Your task to perform on an android device: turn vacation reply on in the gmail app Image 0: 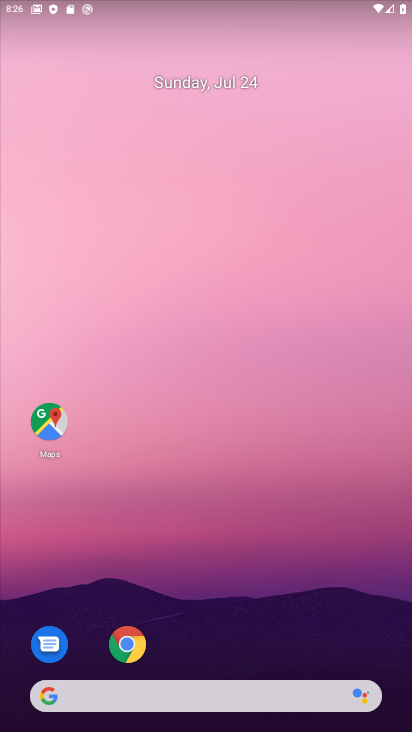
Step 0: click (158, 148)
Your task to perform on an android device: turn vacation reply on in the gmail app Image 1: 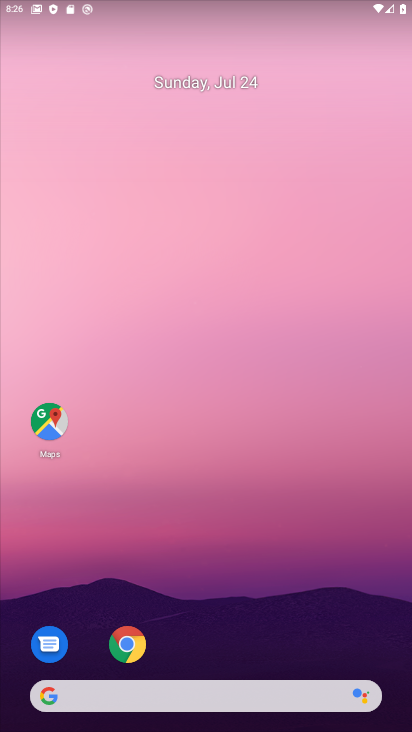
Step 1: drag from (210, 630) to (167, 261)
Your task to perform on an android device: turn vacation reply on in the gmail app Image 2: 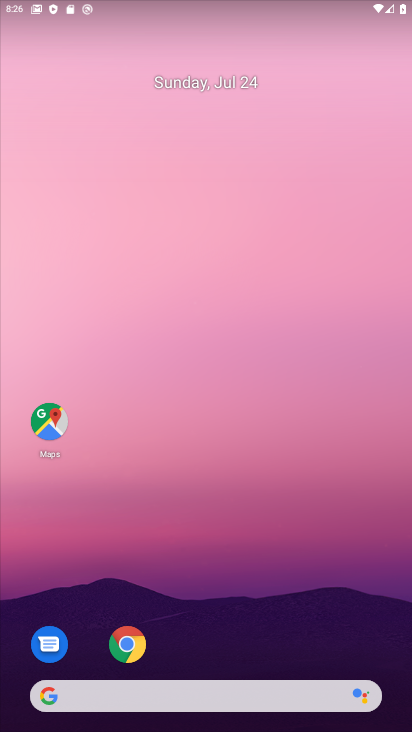
Step 2: drag from (258, 575) to (199, 260)
Your task to perform on an android device: turn vacation reply on in the gmail app Image 3: 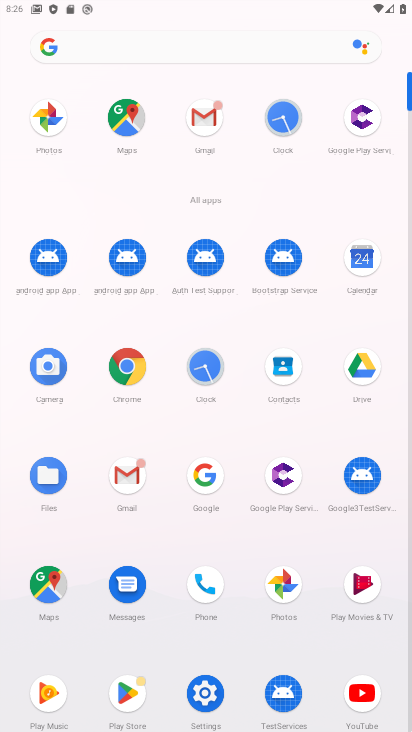
Step 3: drag from (288, 666) to (238, 167)
Your task to perform on an android device: turn vacation reply on in the gmail app Image 4: 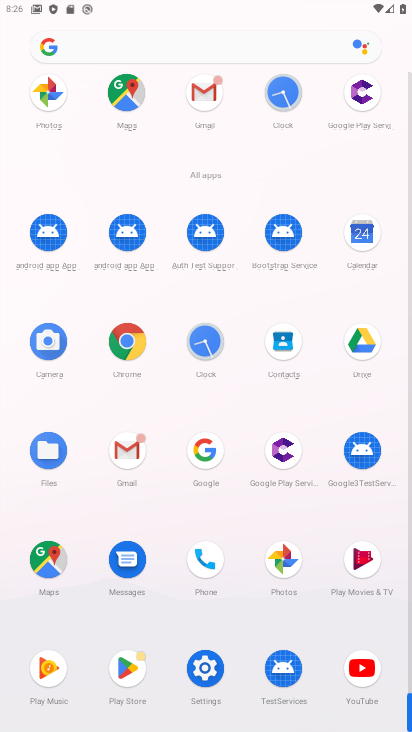
Step 4: click (118, 464)
Your task to perform on an android device: turn vacation reply on in the gmail app Image 5: 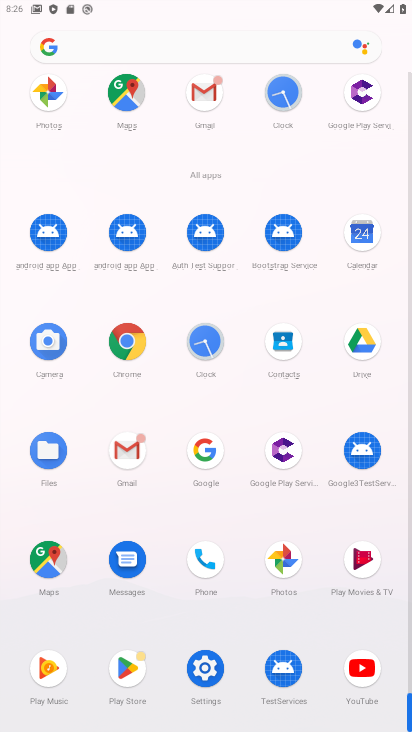
Step 5: click (118, 465)
Your task to perform on an android device: turn vacation reply on in the gmail app Image 6: 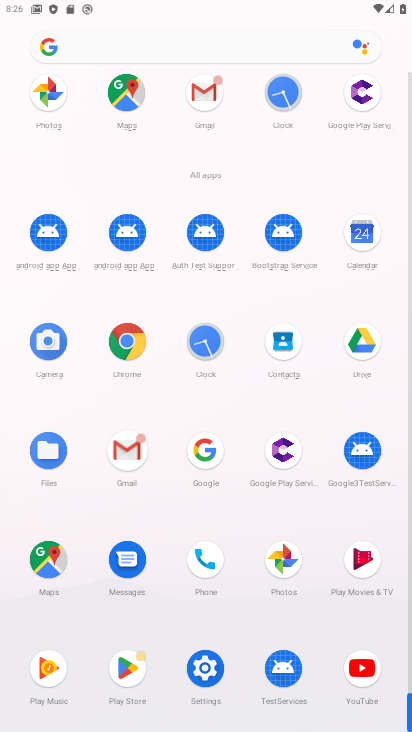
Step 6: click (115, 466)
Your task to perform on an android device: turn vacation reply on in the gmail app Image 7: 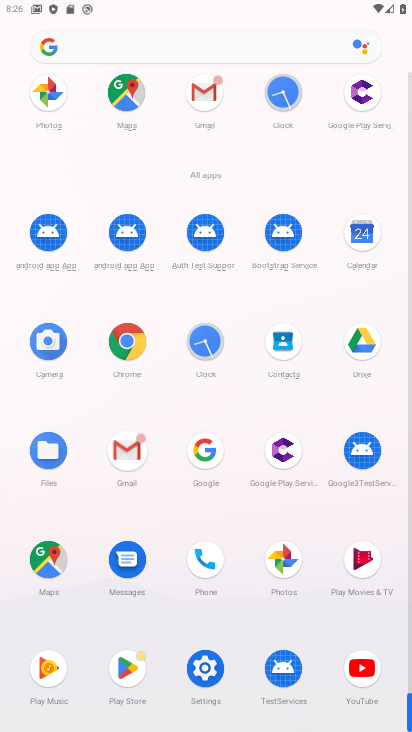
Step 7: click (120, 463)
Your task to perform on an android device: turn vacation reply on in the gmail app Image 8: 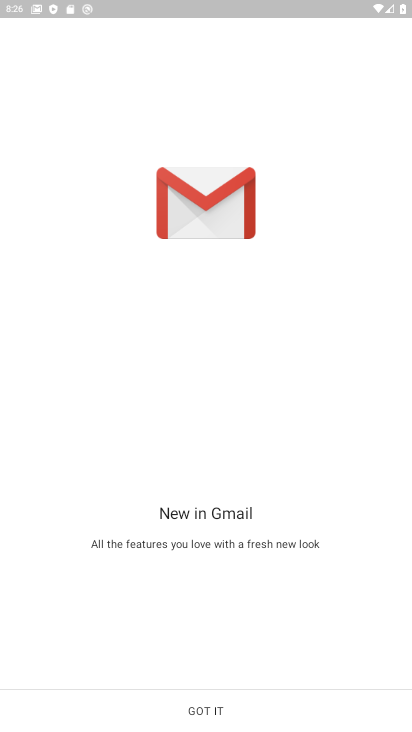
Step 8: click (203, 706)
Your task to perform on an android device: turn vacation reply on in the gmail app Image 9: 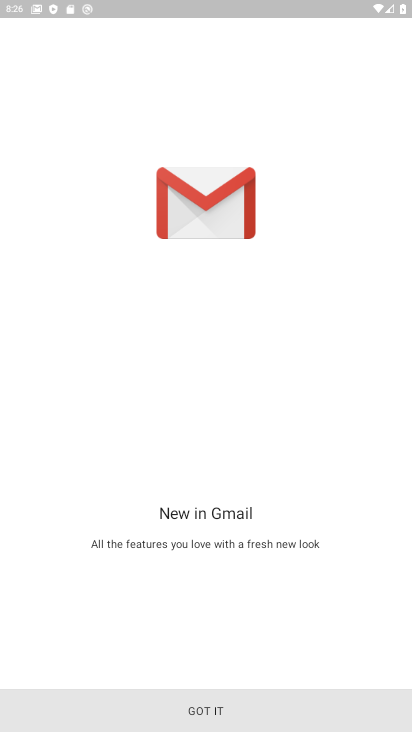
Step 9: click (209, 715)
Your task to perform on an android device: turn vacation reply on in the gmail app Image 10: 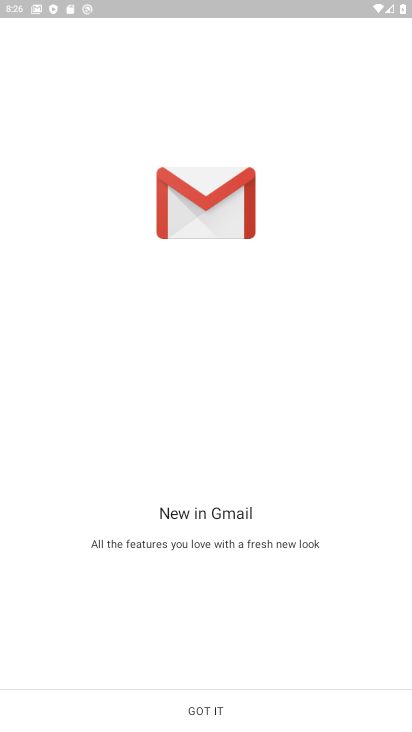
Step 10: click (210, 719)
Your task to perform on an android device: turn vacation reply on in the gmail app Image 11: 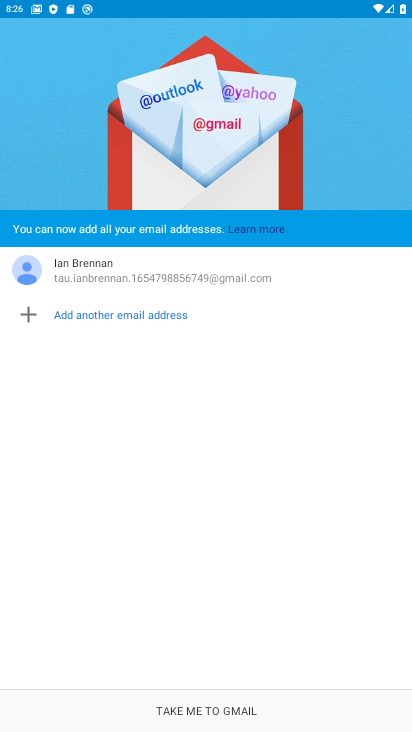
Step 11: click (214, 714)
Your task to perform on an android device: turn vacation reply on in the gmail app Image 12: 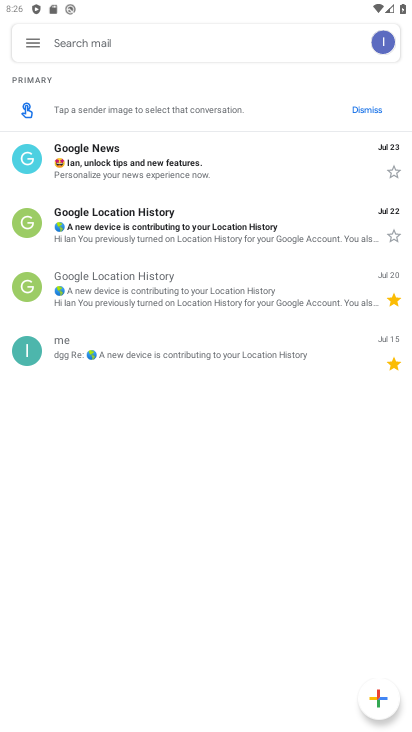
Step 12: click (28, 50)
Your task to perform on an android device: turn vacation reply on in the gmail app Image 13: 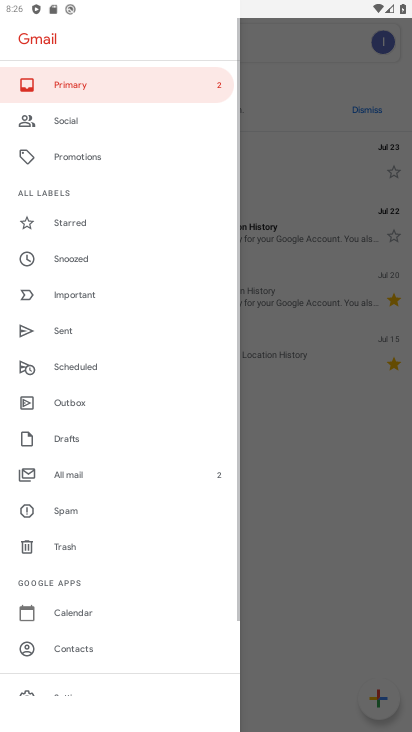
Step 13: drag from (96, 579) to (93, 223)
Your task to perform on an android device: turn vacation reply on in the gmail app Image 14: 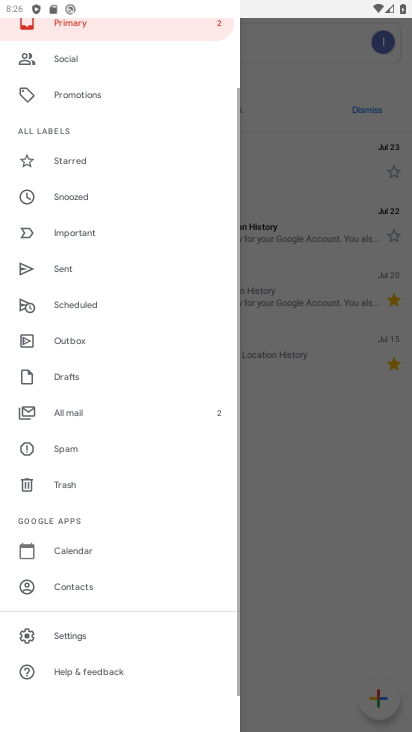
Step 14: drag from (94, 532) to (111, 191)
Your task to perform on an android device: turn vacation reply on in the gmail app Image 15: 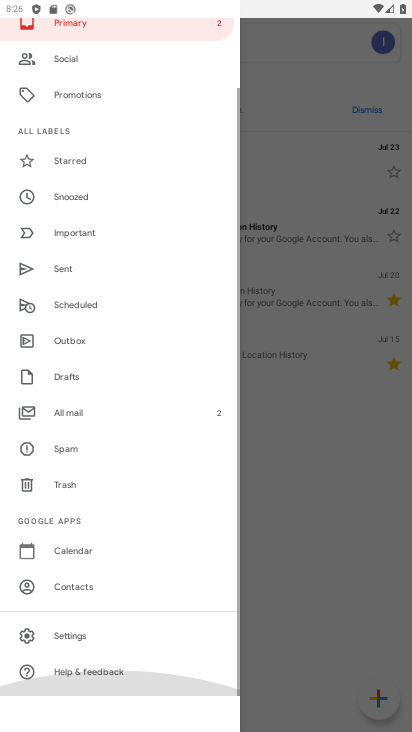
Step 15: drag from (106, 429) to (105, 203)
Your task to perform on an android device: turn vacation reply on in the gmail app Image 16: 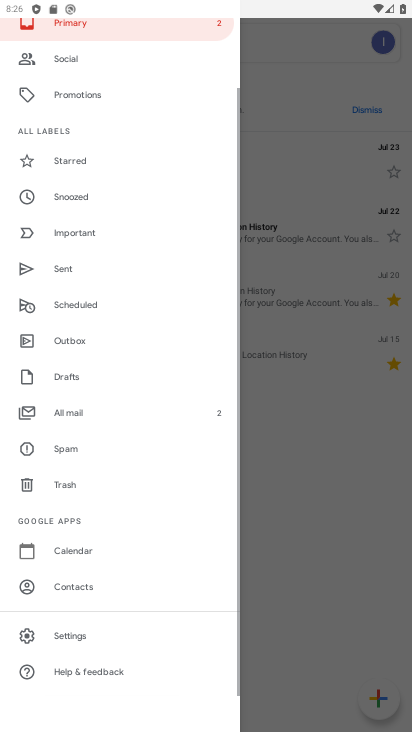
Step 16: click (74, 642)
Your task to perform on an android device: turn vacation reply on in the gmail app Image 17: 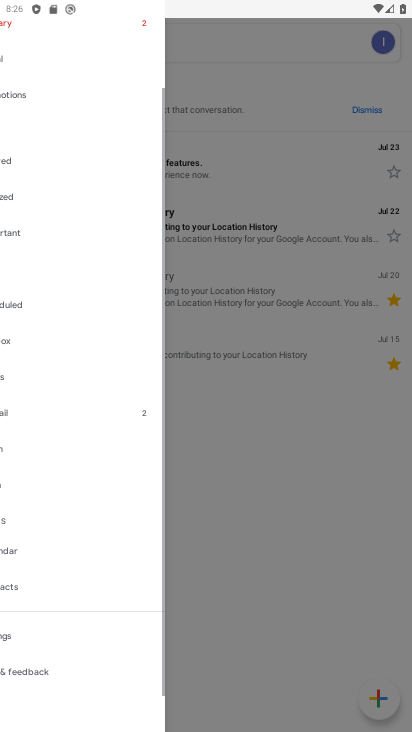
Step 17: click (74, 641)
Your task to perform on an android device: turn vacation reply on in the gmail app Image 18: 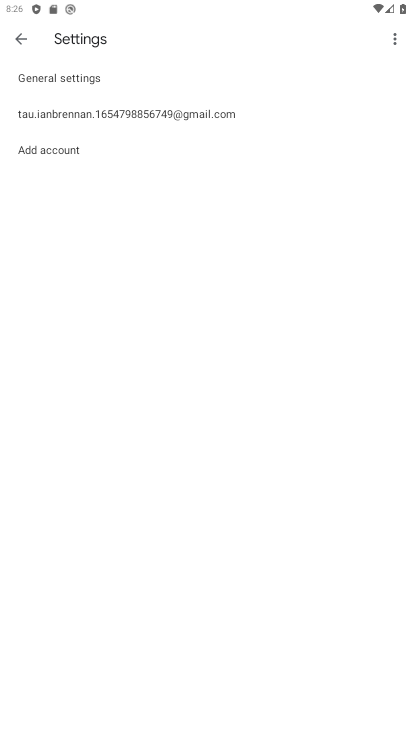
Step 18: click (86, 119)
Your task to perform on an android device: turn vacation reply on in the gmail app Image 19: 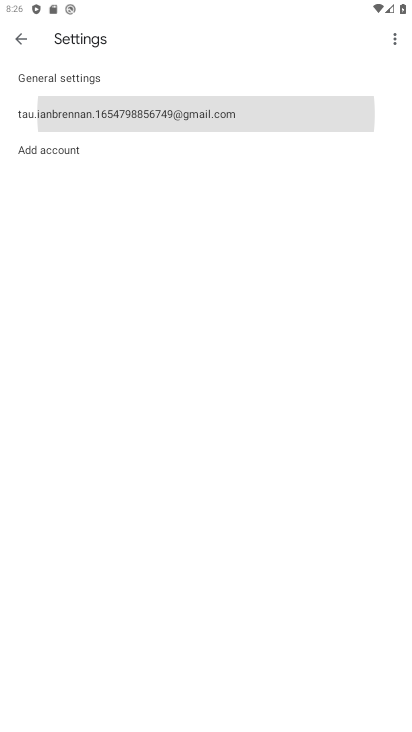
Step 19: click (85, 118)
Your task to perform on an android device: turn vacation reply on in the gmail app Image 20: 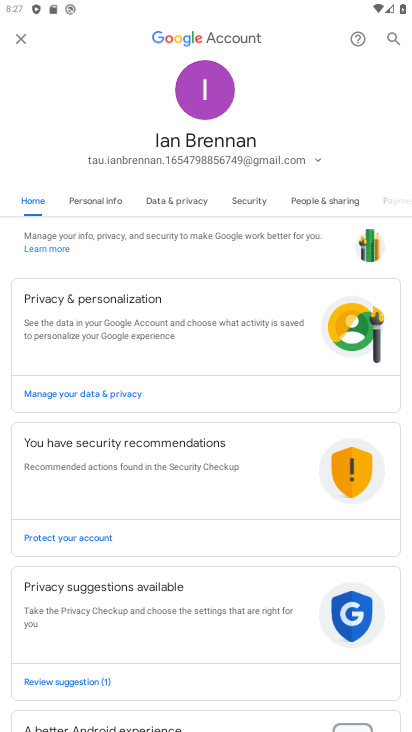
Step 20: click (12, 37)
Your task to perform on an android device: turn vacation reply on in the gmail app Image 21: 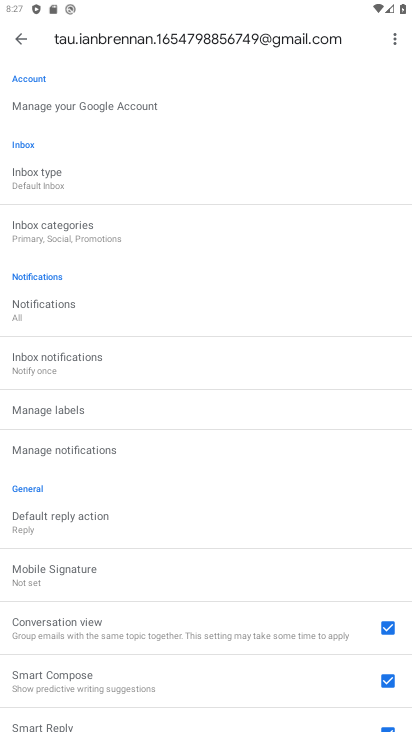
Step 21: drag from (198, 568) to (189, 306)
Your task to perform on an android device: turn vacation reply on in the gmail app Image 22: 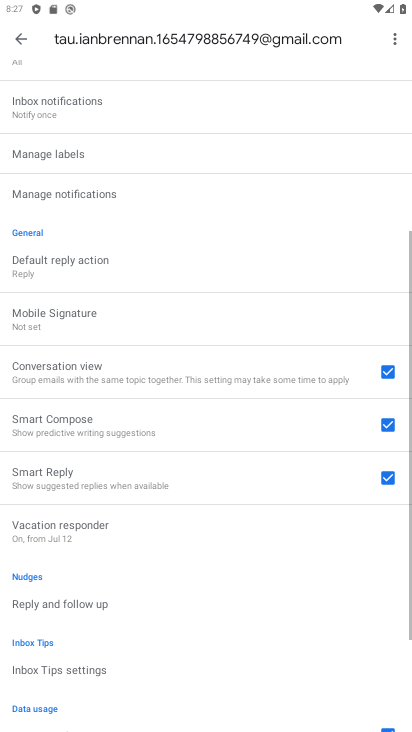
Step 22: drag from (150, 537) to (130, 194)
Your task to perform on an android device: turn vacation reply on in the gmail app Image 23: 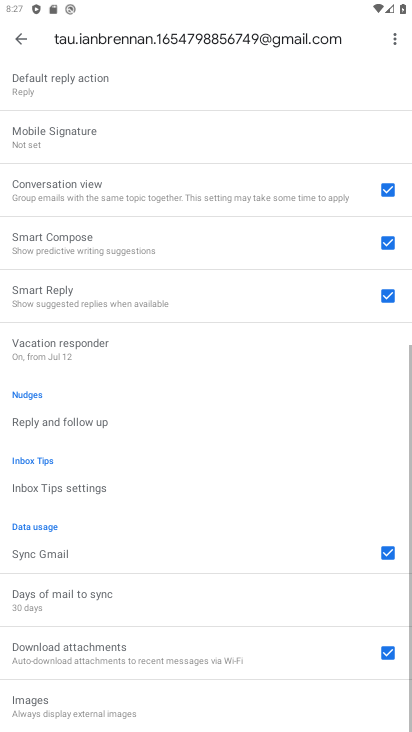
Step 23: drag from (117, 389) to (135, 203)
Your task to perform on an android device: turn vacation reply on in the gmail app Image 24: 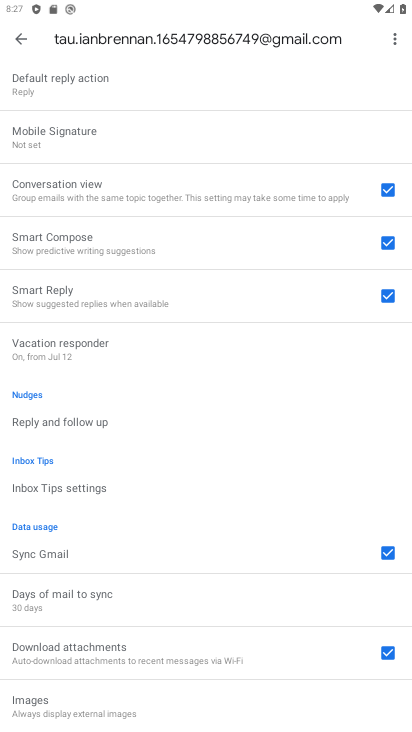
Step 24: click (62, 343)
Your task to perform on an android device: turn vacation reply on in the gmail app Image 25: 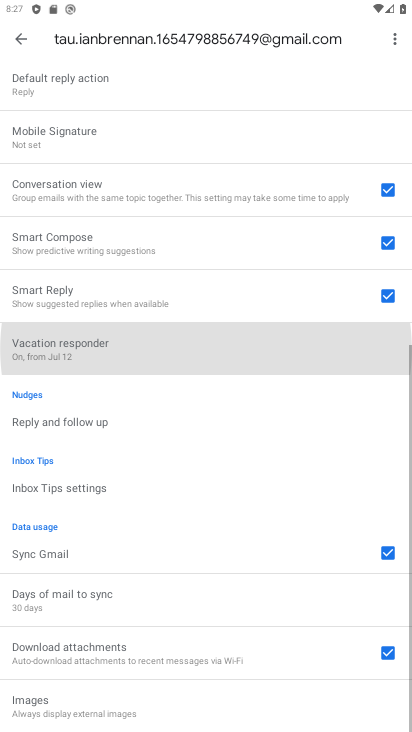
Step 25: click (63, 343)
Your task to perform on an android device: turn vacation reply on in the gmail app Image 26: 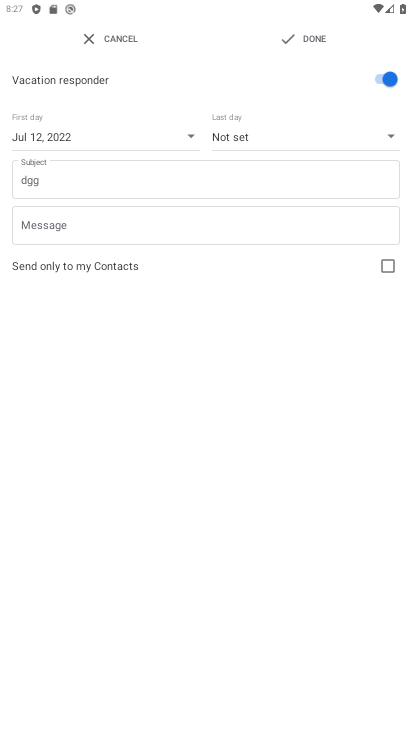
Step 26: task complete